Your task to perform on an android device: Open battery settings Image 0: 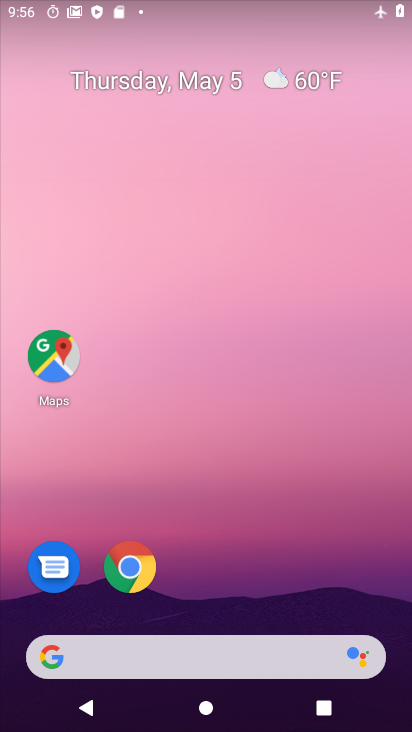
Step 0: drag from (324, 468) to (261, 48)
Your task to perform on an android device: Open battery settings Image 1: 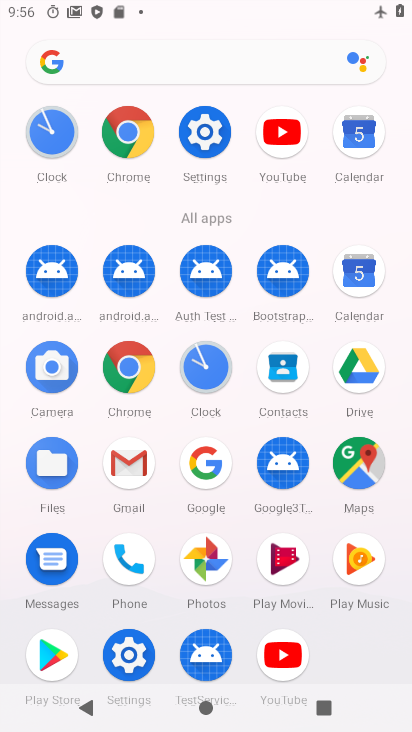
Step 1: click (215, 138)
Your task to perform on an android device: Open battery settings Image 2: 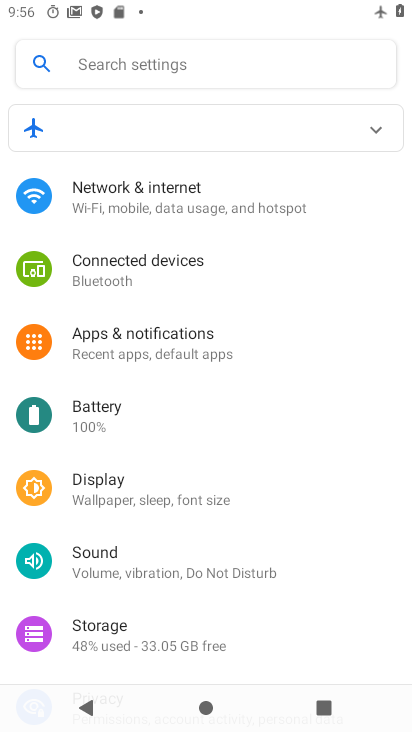
Step 2: click (108, 405)
Your task to perform on an android device: Open battery settings Image 3: 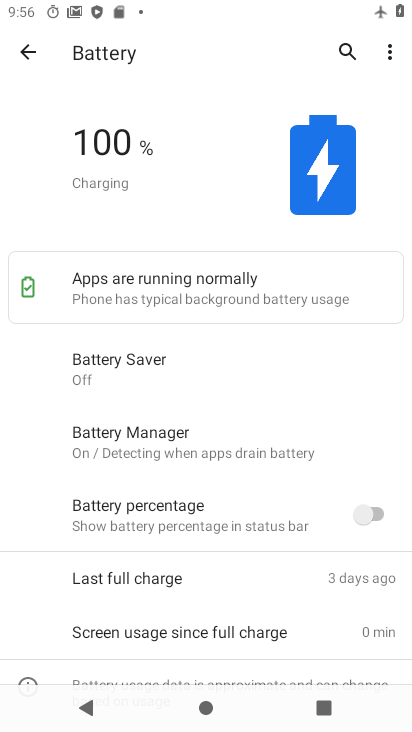
Step 3: task complete